Your task to perform on an android device: Search for duracell triple a on target.com, select the first entry, add it to the cart, then select checkout. Image 0: 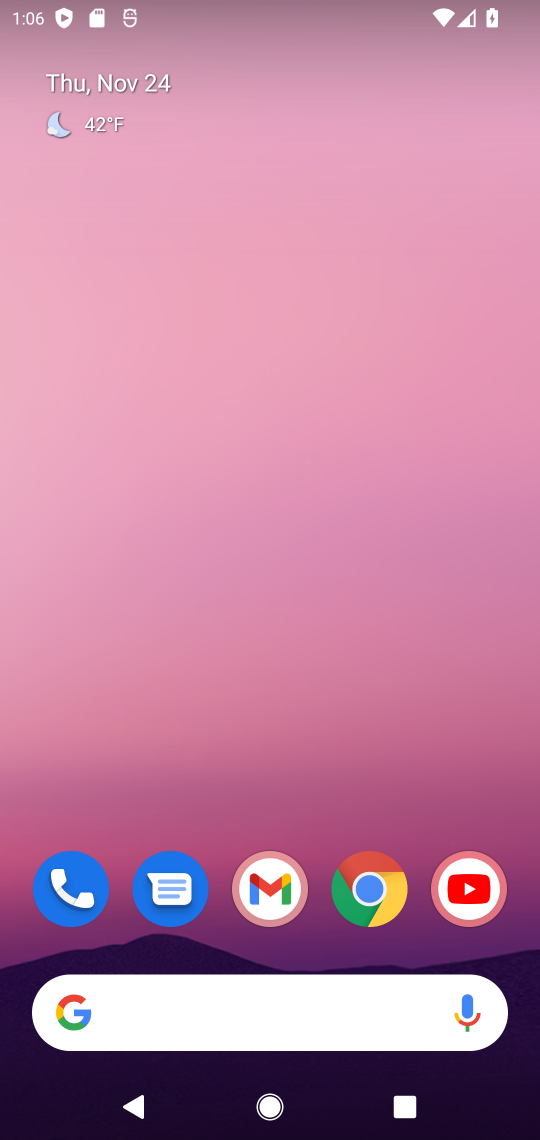
Step 0: click (371, 900)
Your task to perform on an android device: Search for duracell triple a on target.com, select the first entry, add it to the cart, then select checkout. Image 1: 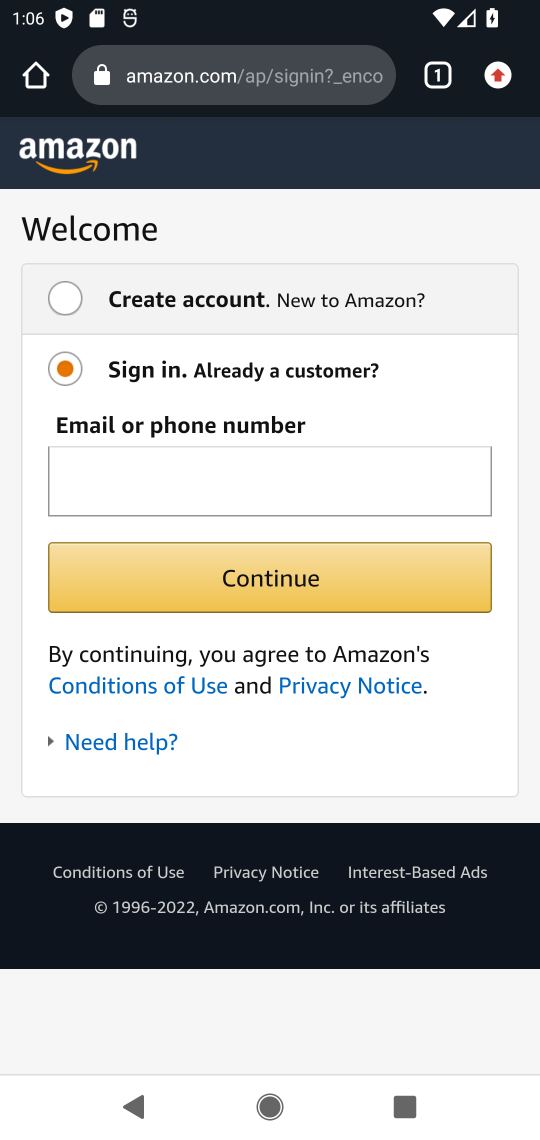
Step 1: click (181, 77)
Your task to perform on an android device: Search for duracell triple a on target.com, select the first entry, add it to the cart, then select checkout. Image 2: 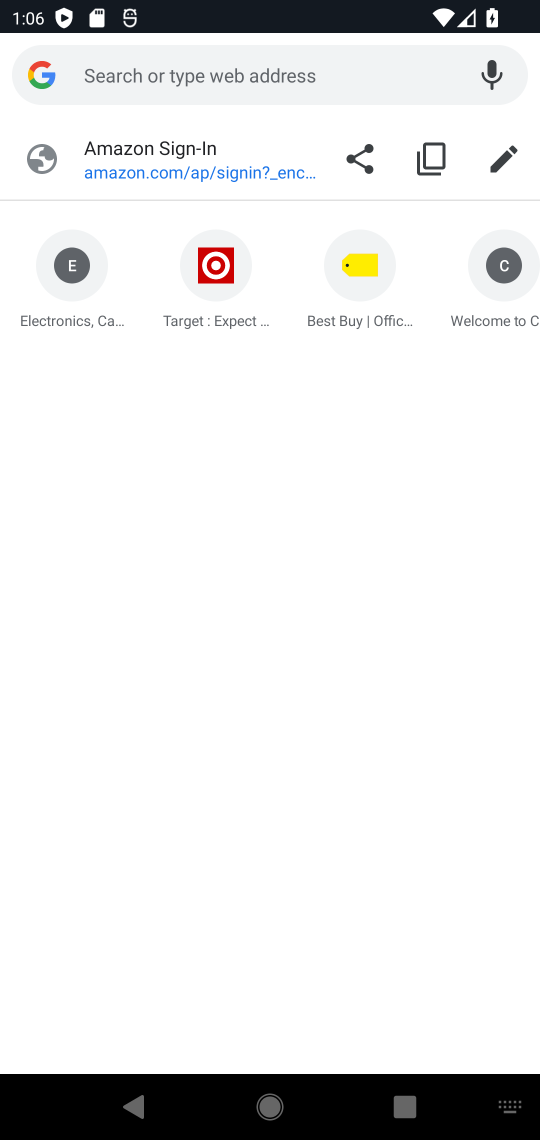
Step 2: click (213, 268)
Your task to perform on an android device: Search for duracell triple a on target.com, select the first entry, add it to the cart, then select checkout. Image 3: 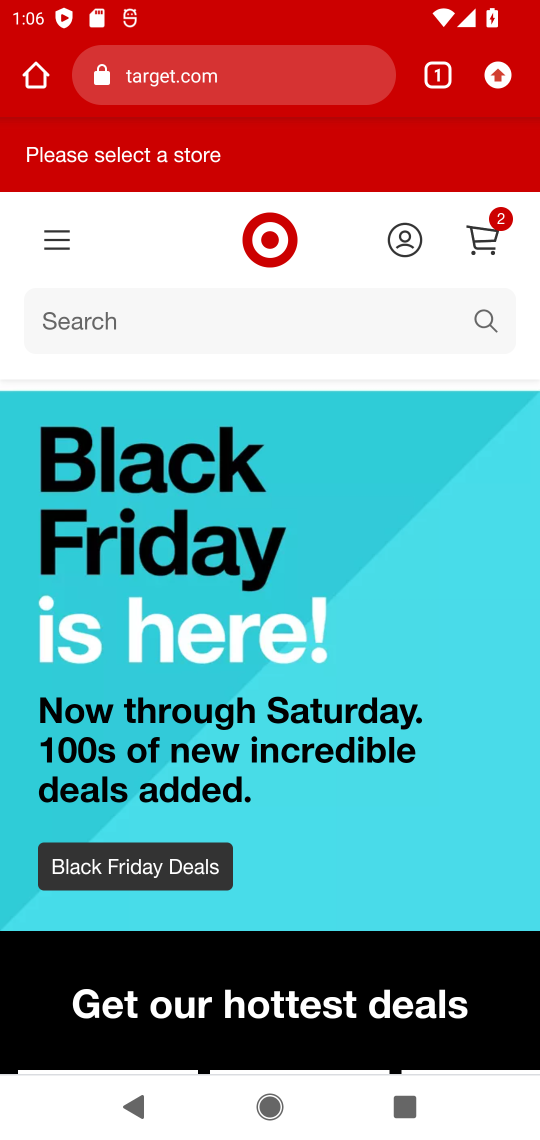
Step 3: click (101, 321)
Your task to perform on an android device: Search for duracell triple a on target.com, select the first entry, add it to the cart, then select checkout. Image 4: 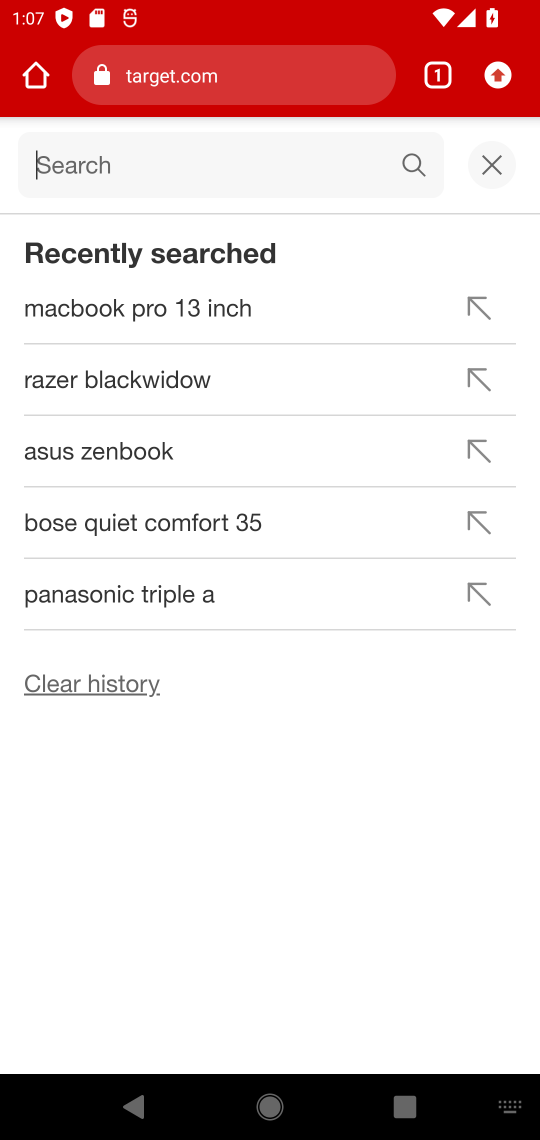
Step 4: type "duracell triple a "
Your task to perform on an android device: Search for duracell triple a on target.com, select the first entry, add it to the cart, then select checkout. Image 5: 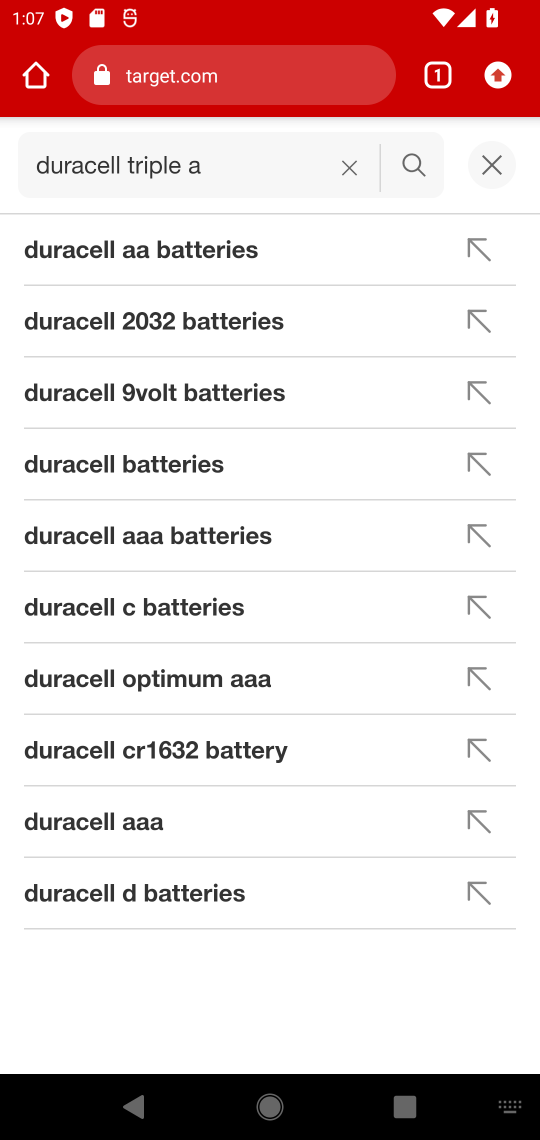
Step 5: click (411, 157)
Your task to perform on an android device: Search for duracell triple a on target.com, select the first entry, add it to the cart, then select checkout. Image 6: 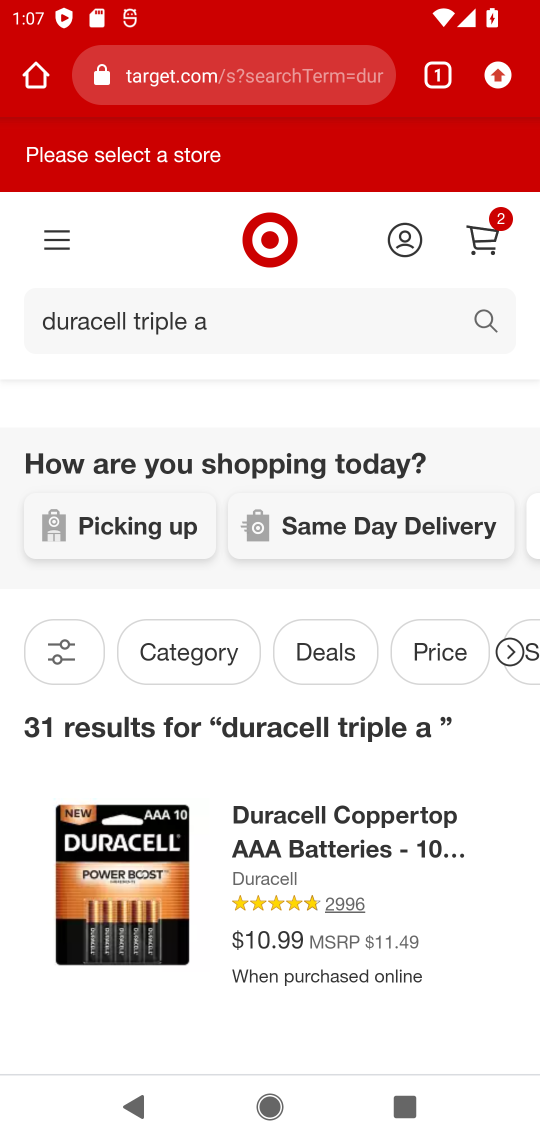
Step 6: drag from (162, 673) to (188, 396)
Your task to perform on an android device: Search for duracell triple a on target.com, select the first entry, add it to the cart, then select checkout. Image 7: 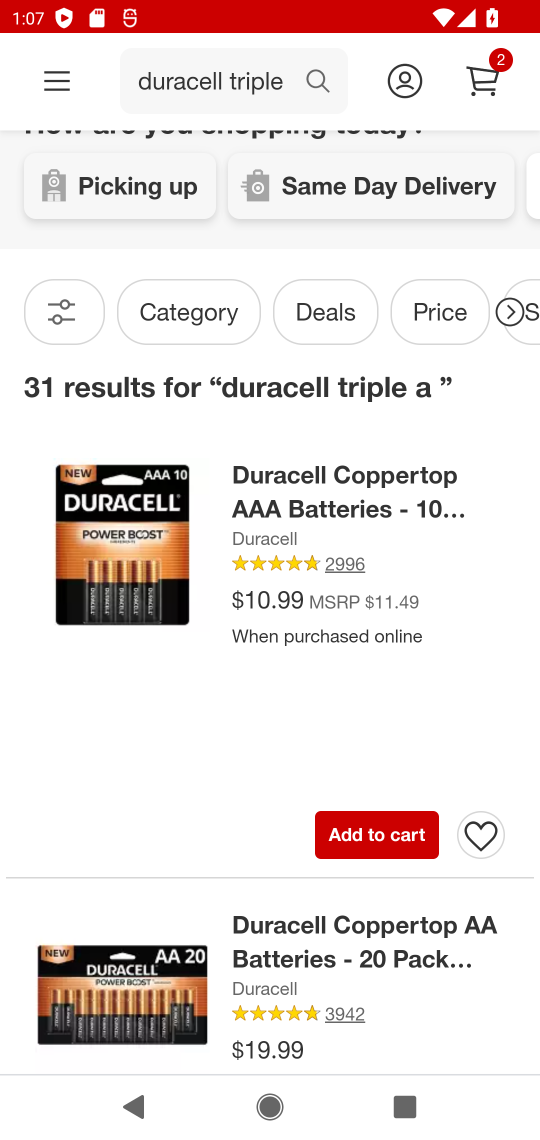
Step 7: click (347, 840)
Your task to perform on an android device: Search for duracell triple a on target.com, select the first entry, add it to the cart, then select checkout. Image 8: 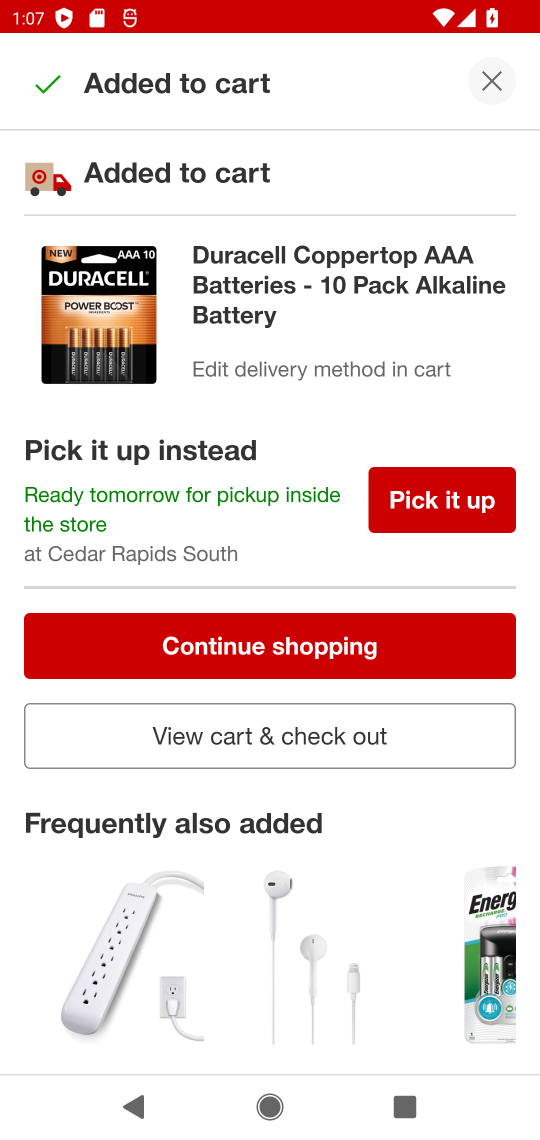
Step 8: click (270, 736)
Your task to perform on an android device: Search for duracell triple a on target.com, select the first entry, add it to the cart, then select checkout. Image 9: 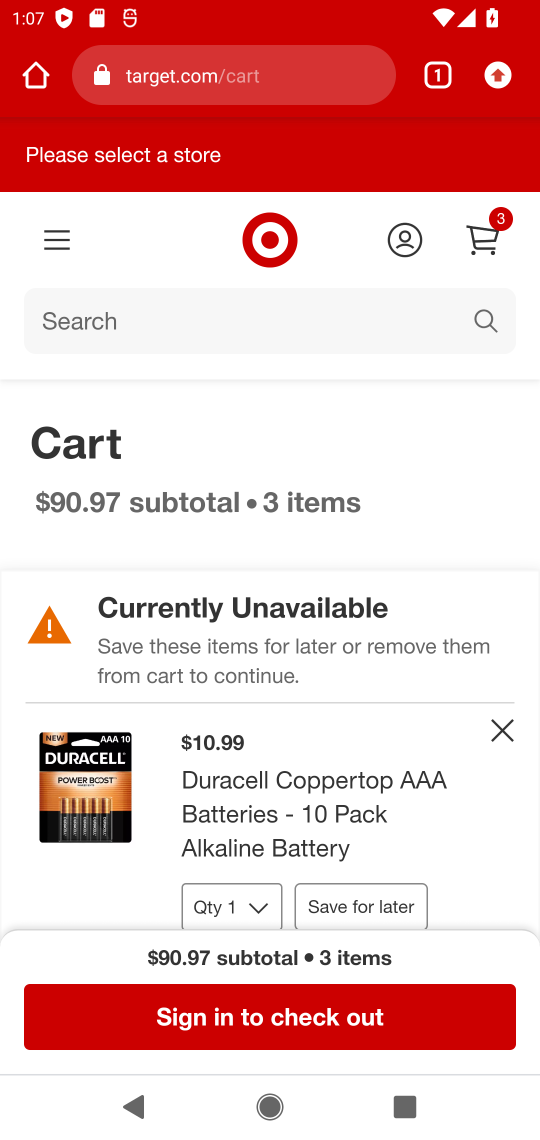
Step 9: click (232, 1020)
Your task to perform on an android device: Search for duracell triple a on target.com, select the first entry, add it to the cart, then select checkout. Image 10: 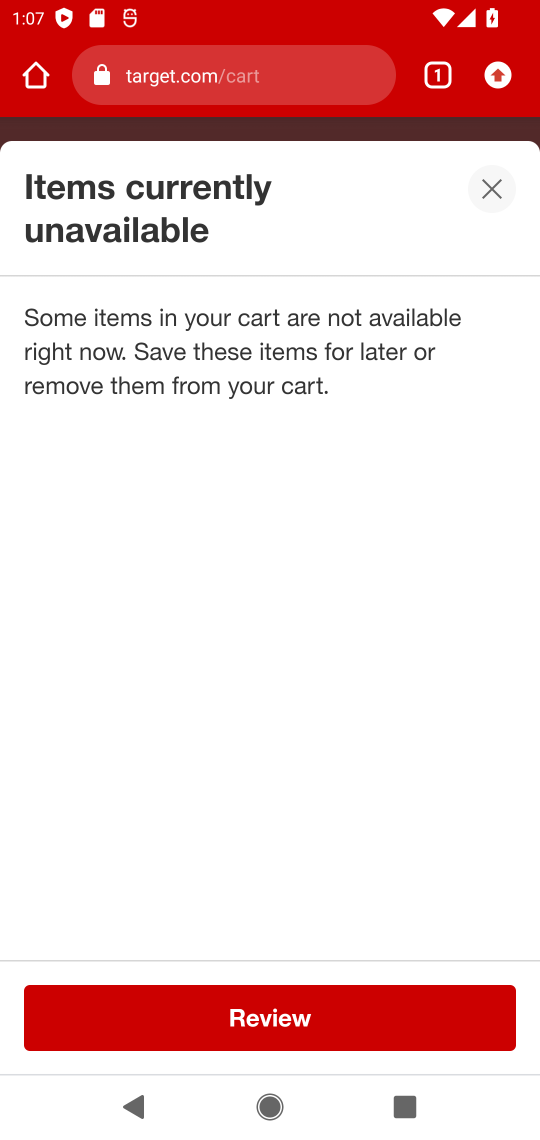
Step 10: task complete